Your task to perform on an android device: open chrome privacy settings Image 0: 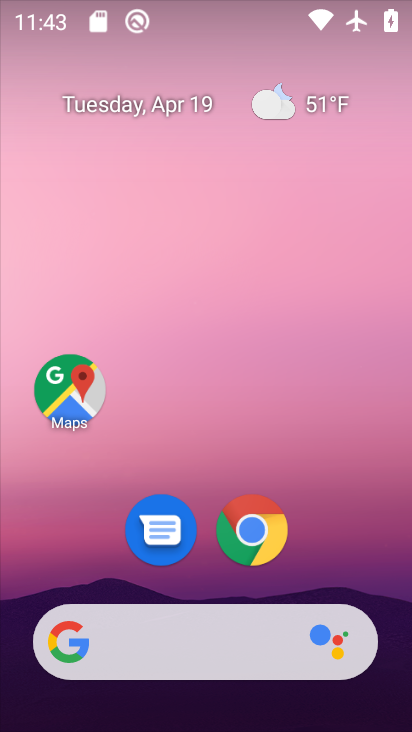
Step 0: drag from (152, 603) to (298, 68)
Your task to perform on an android device: open chrome privacy settings Image 1: 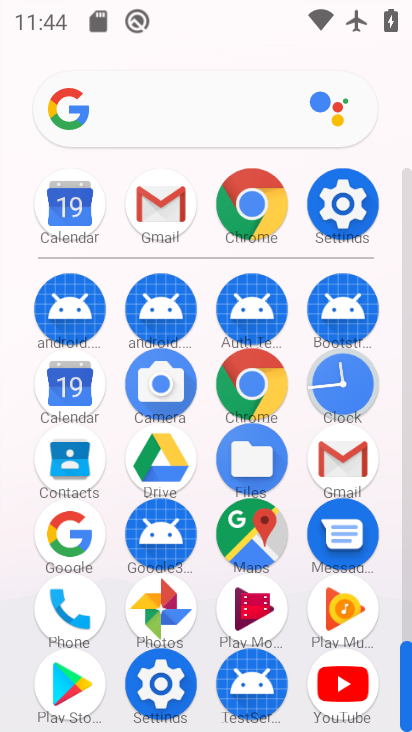
Step 1: click (263, 199)
Your task to perform on an android device: open chrome privacy settings Image 2: 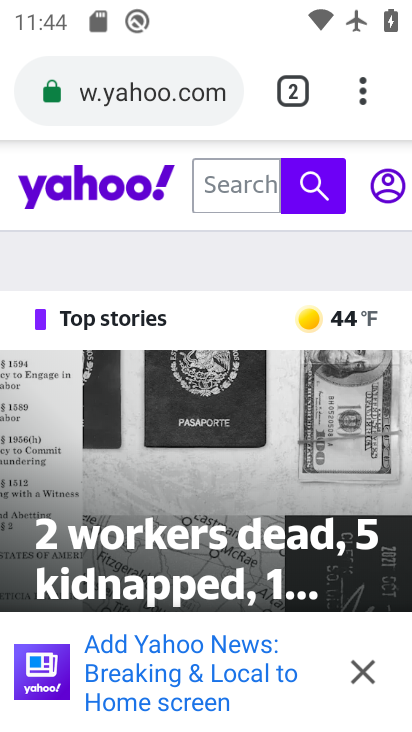
Step 2: click (364, 95)
Your task to perform on an android device: open chrome privacy settings Image 3: 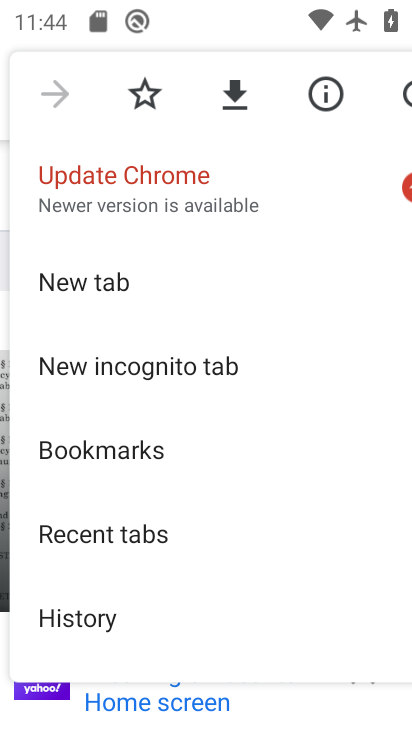
Step 3: drag from (179, 580) to (356, 110)
Your task to perform on an android device: open chrome privacy settings Image 4: 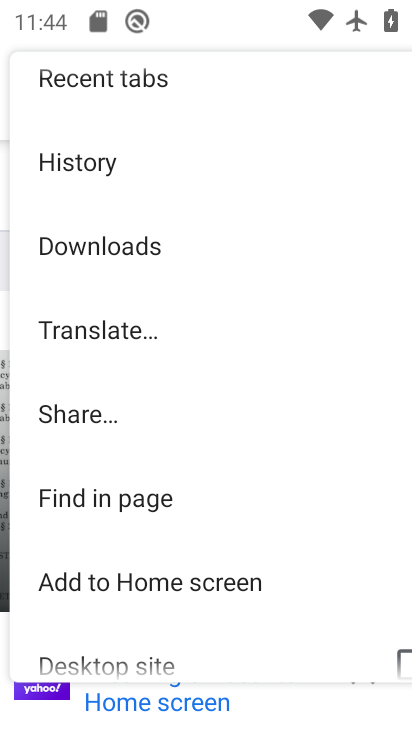
Step 4: drag from (169, 640) to (351, 136)
Your task to perform on an android device: open chrome privacy settings Image 5: 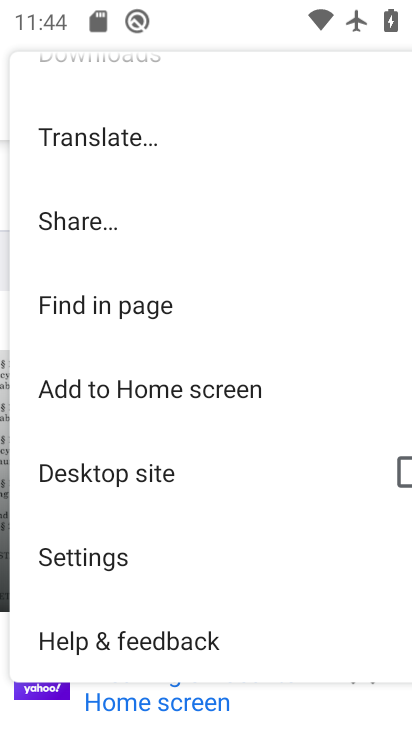
Step 5: click (85, 559)
Your task to perform on an android device: open chrome privacy settings Image 6: 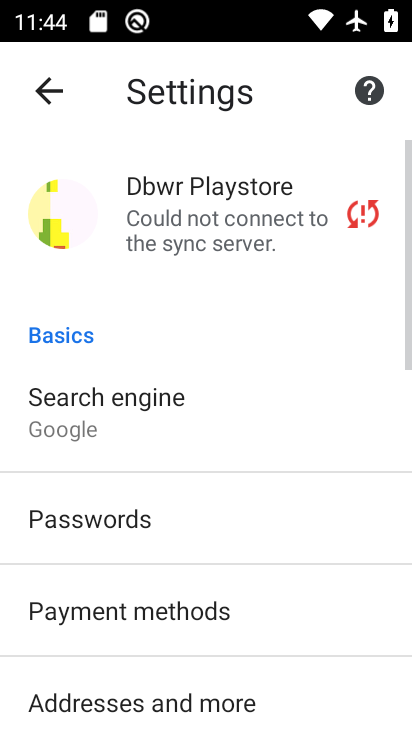
Step 6: drag from (137, 509) to (284, 201)
Your task to perform on an android device: open chrome privacy settings Image 7: 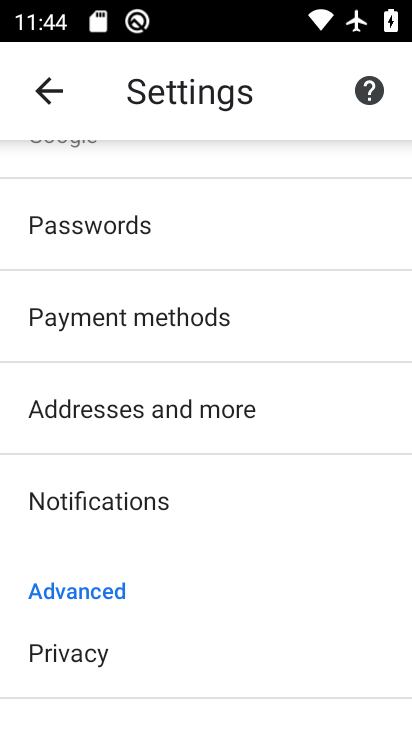
Step 7: click (68, 653)
Your task to perform on an android device: open chrome privacy settings Image 8: 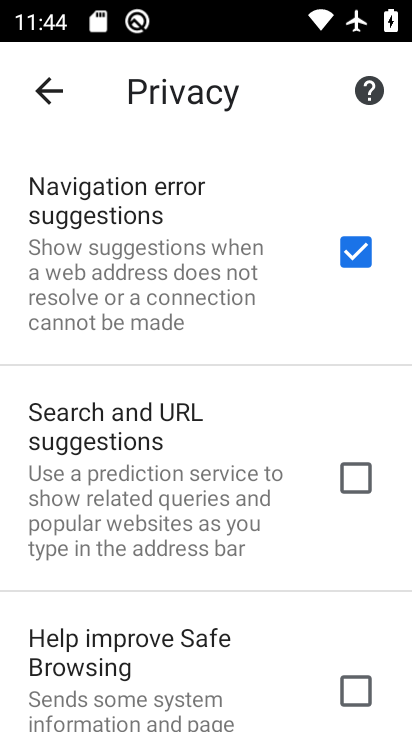
Step 8: task complete